Your task to perform on an android device: Open Google Image 0: 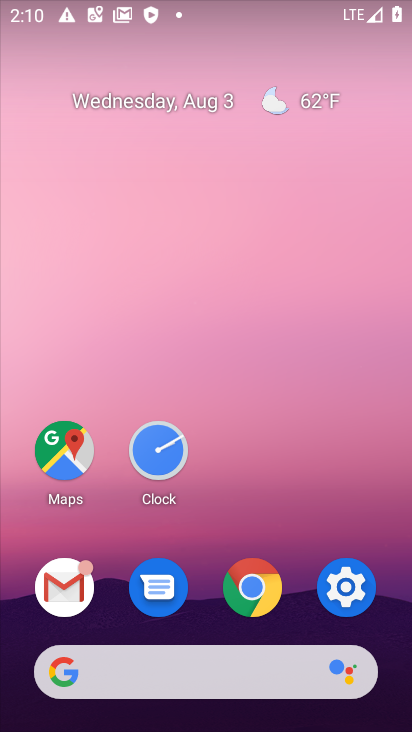
Step 0: click (52, 667)
Your task to perform on an android device: Open Google Image 1: 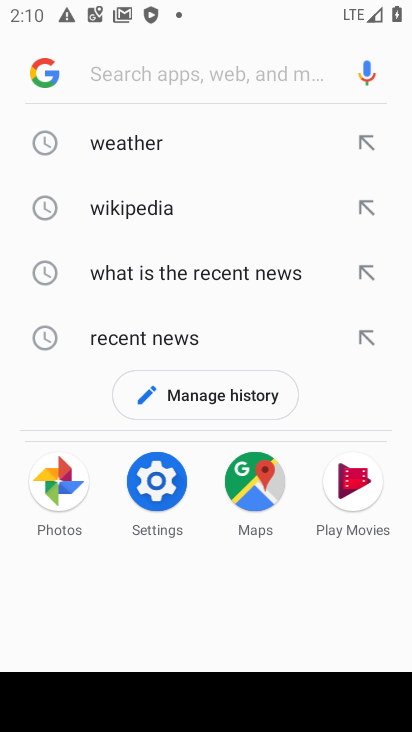
Step 1: click (40, 77)
Your task to perform on an android device: Open Google Image 2: 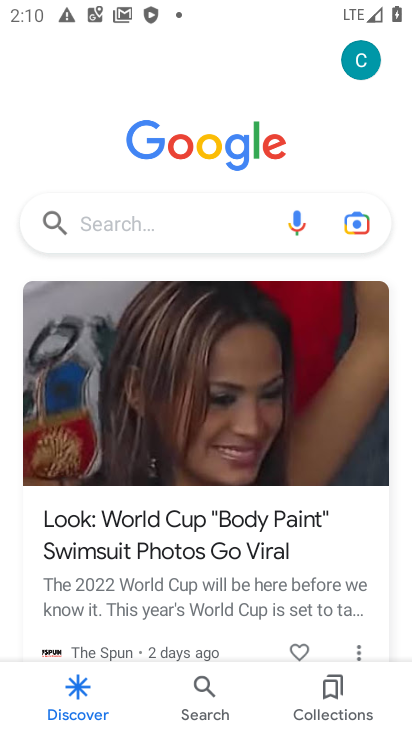
Step 2: task complete